Your task to perform on an android device: Go to Google Image 0: 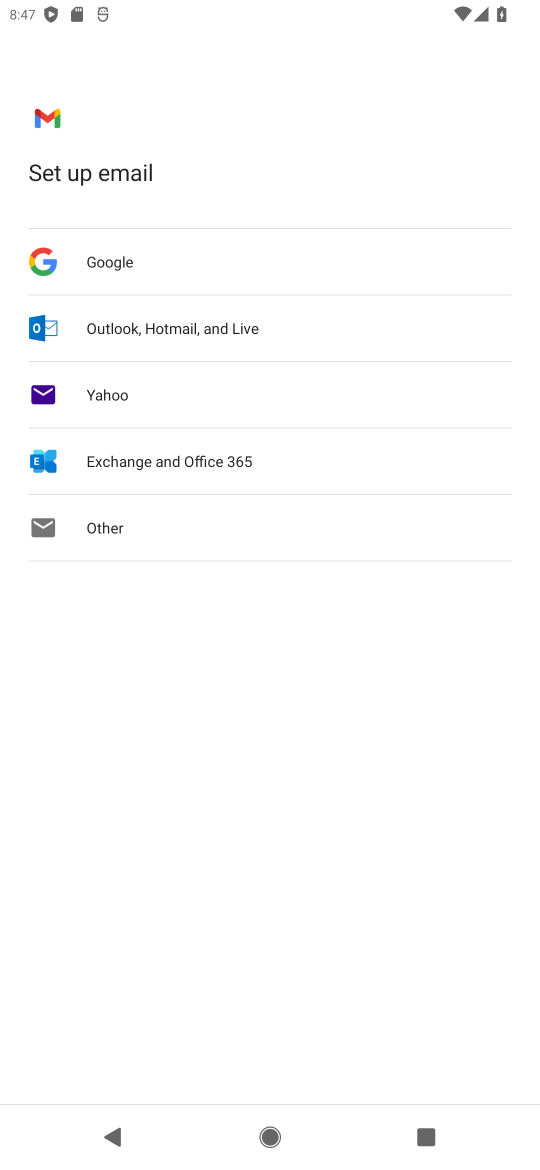
Step 0: press home button
Your task to perform on an android device: Go to Google Image 1: 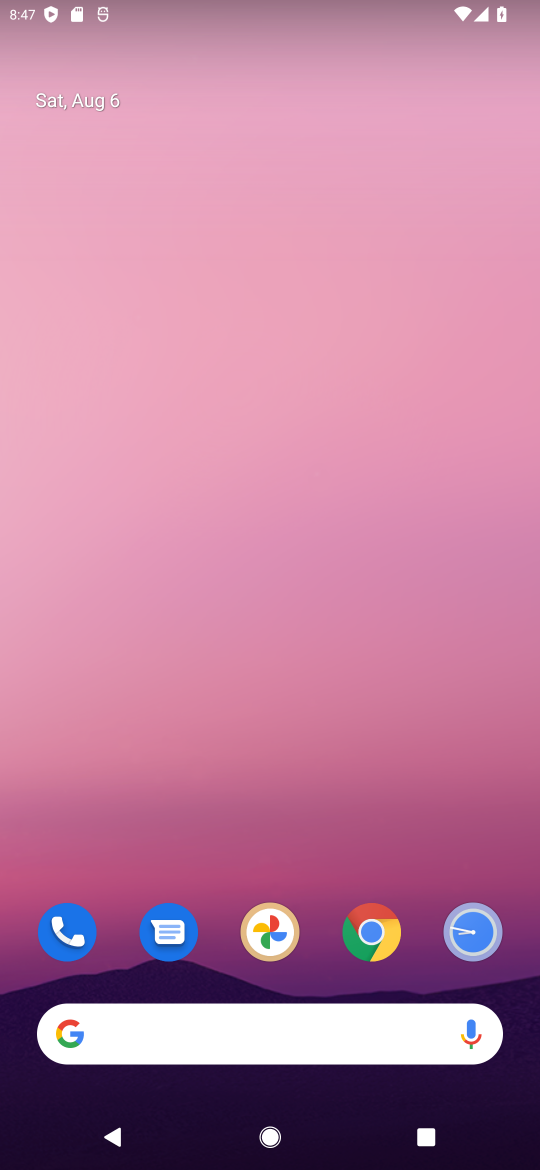
Step 1: drag from (191, 1050) to (265, 274)
Your task to perform on an android device: Go to Google Image 2: 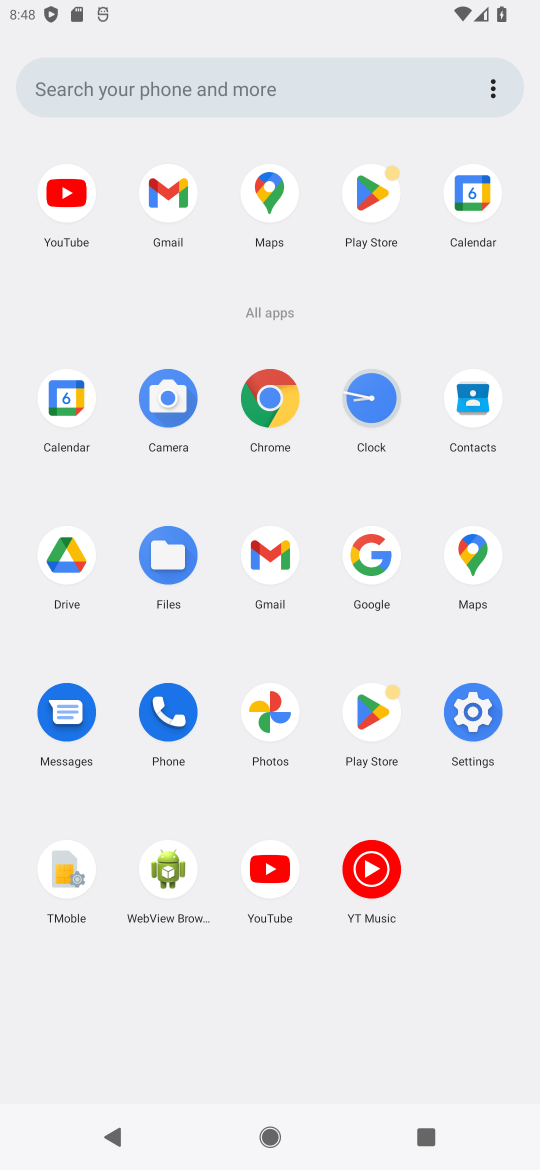
Step 2: click (366, 556)
Your task to perform on an android device: Go to Google Image 3: 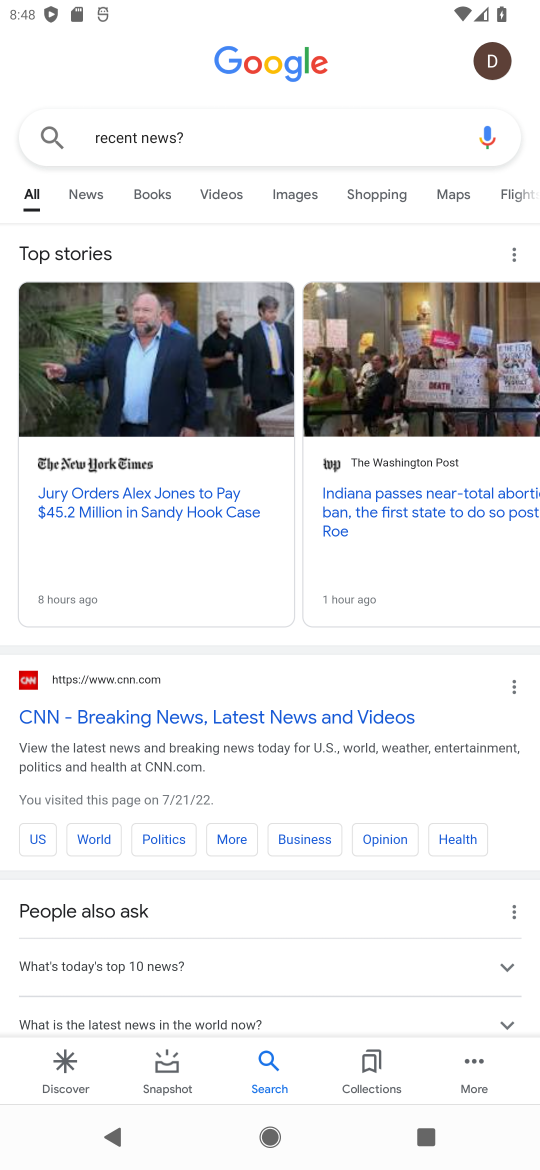
Step 3: task complete